Your task to perform on an android device: install app "Speedtest by Ookla" Image 0: 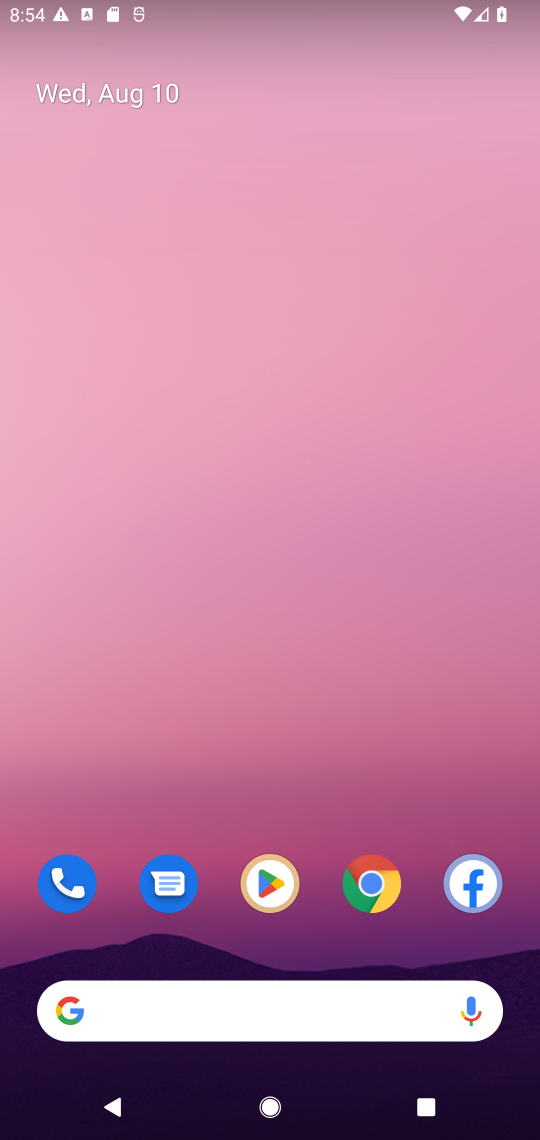
Step 0: drag from (322, 861) to (304, 18)
Your task to perform on an android device: install app "Speedtest by Ookla" Image 1: 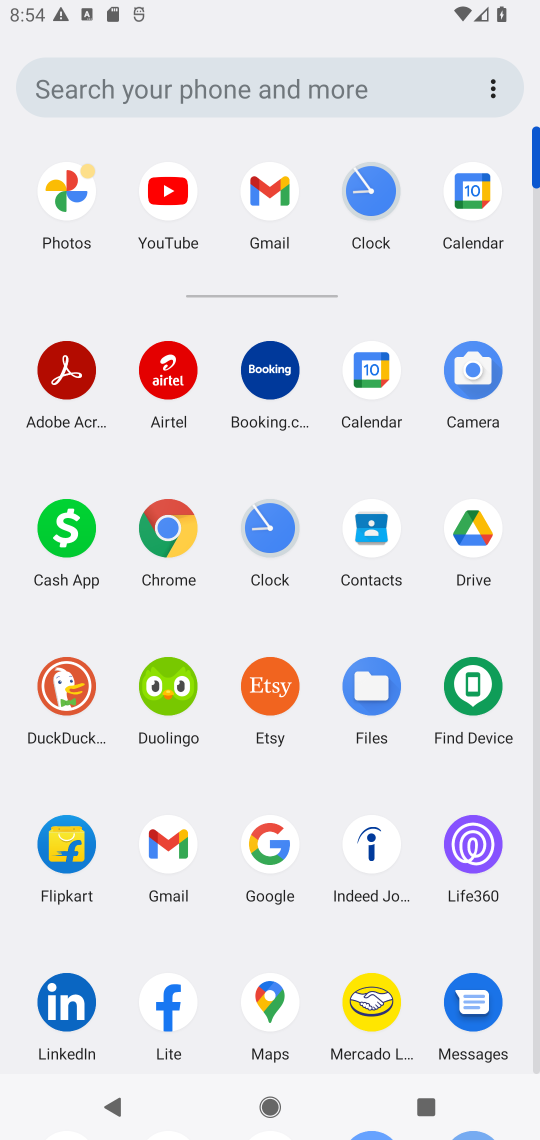
Step 1: drag from (228, 855) to (230, 458)
Your task to perform on an android device: install app "Speedtest by Ookla" Image 2: 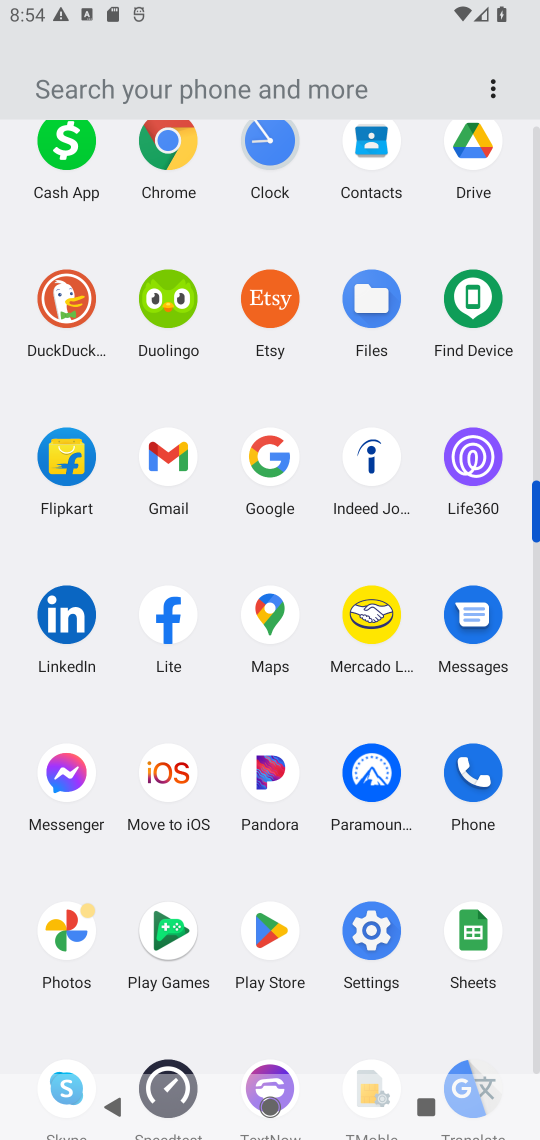
Step 2: click (272, 918)
Your task to perform on an android device: install app "Speedtest by Ookla" Image 3: 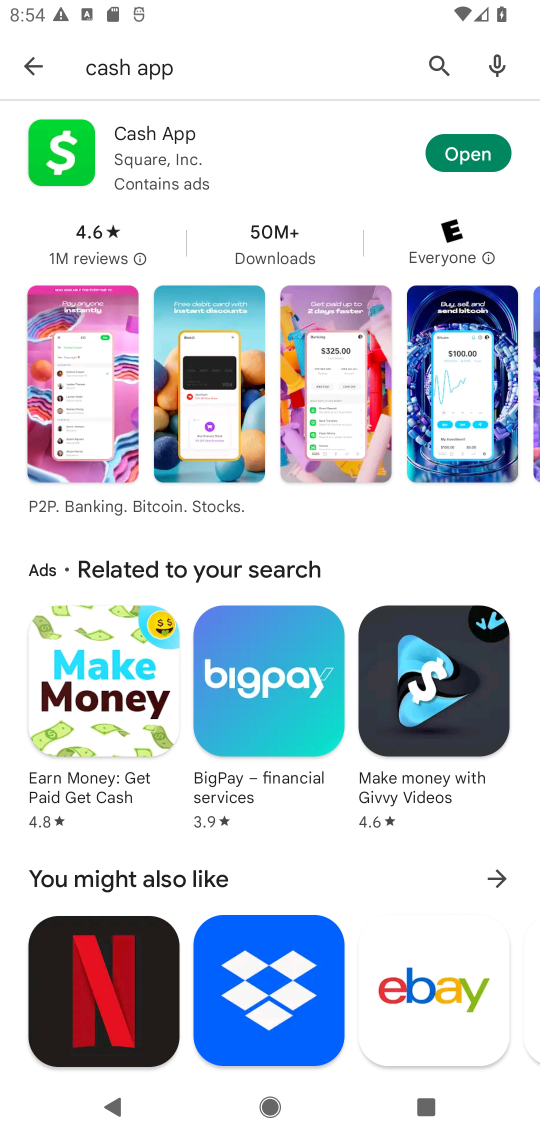
Step 3: click (421, 49)
Your task to perform on an android device: install app "Speedtest by Ookla" Image 4: 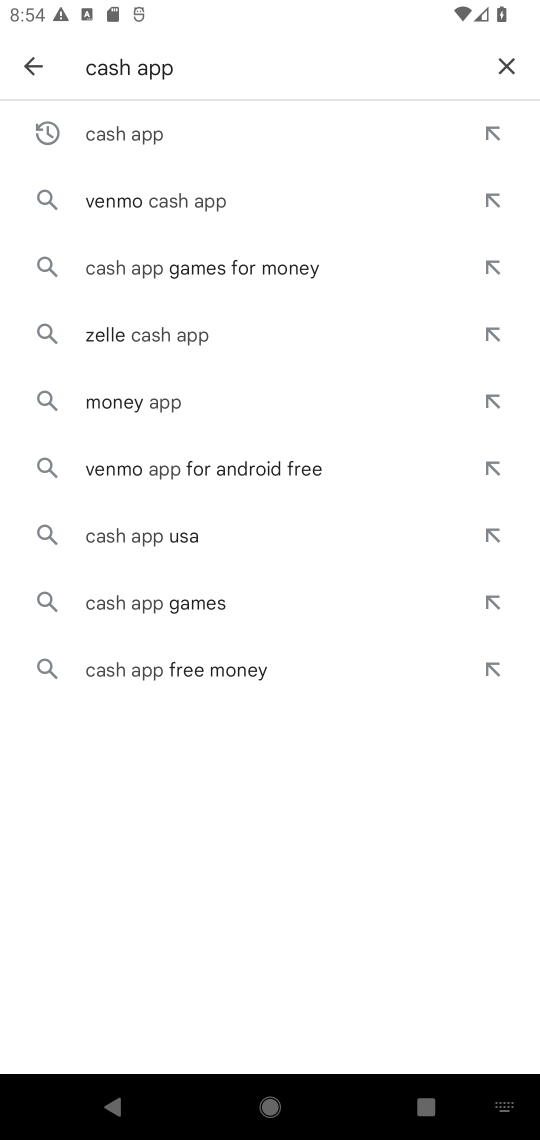
Step 4: click (508, 58)
Your task to perform on an android device: install app "Speedtest by Ookla" Image 5: 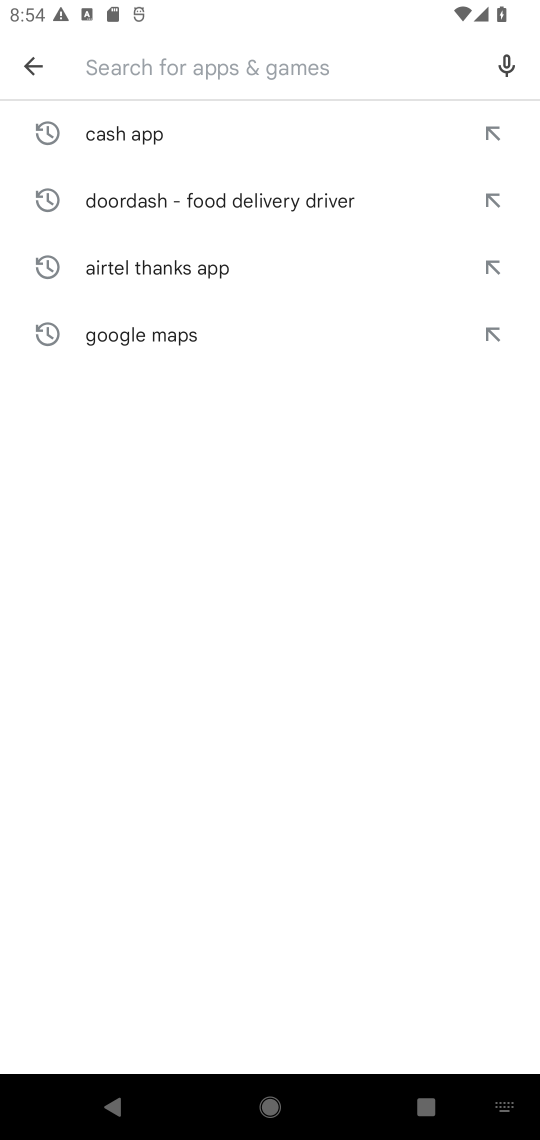
Step 5: type "Speedtest by Ookla"
Your task to perform on an android device: install app "Speedtest by Ookla" Image 6: 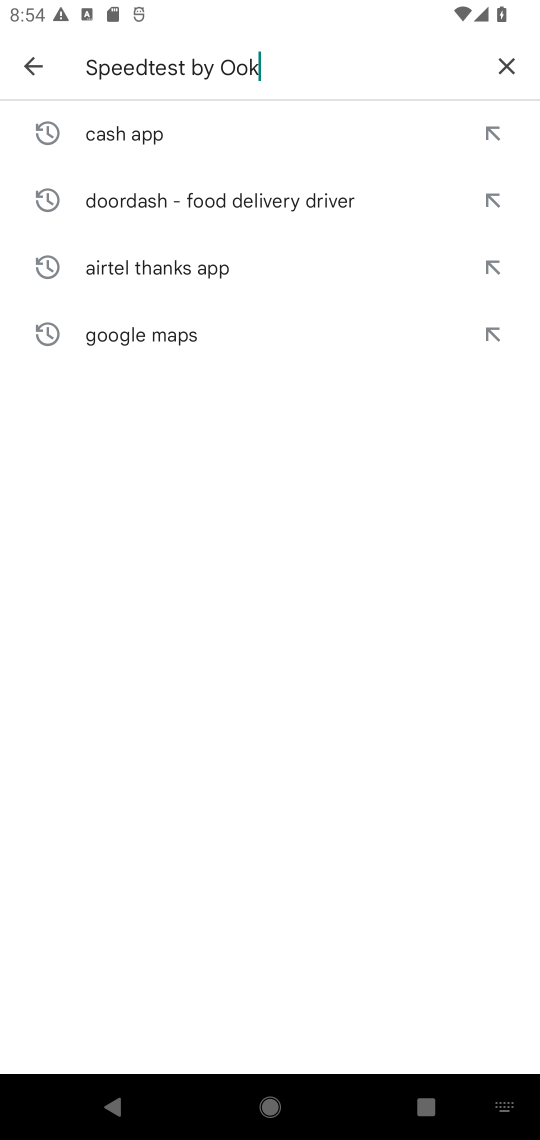
Step 6: type ""
Your task to perform on an android device: install app "Speedtest by Ookla" Image 7: 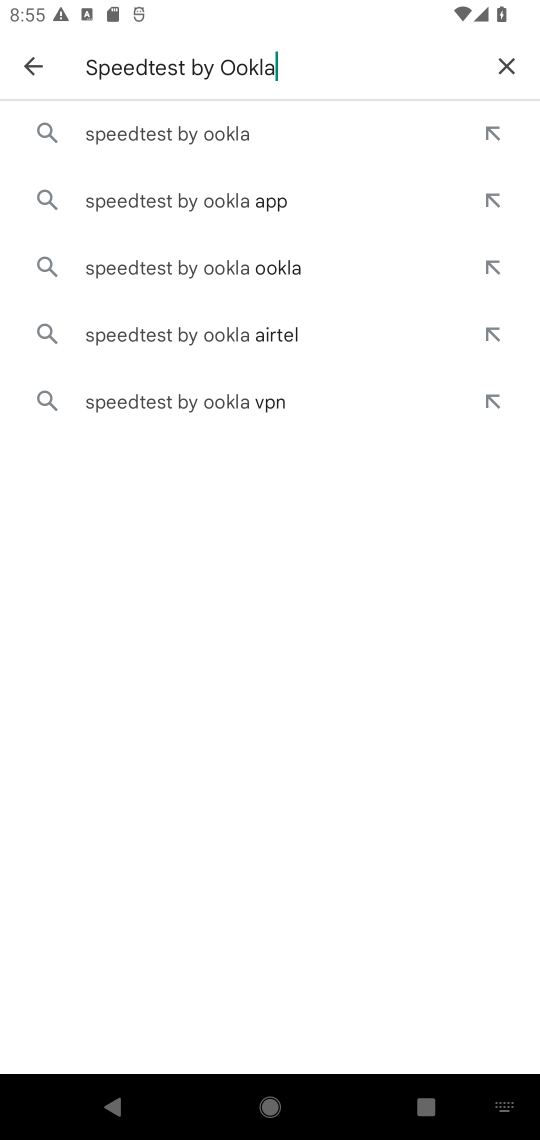
Step 7: click (148, 134)
Your task to perform on an android device: install app "Speedtest by Ookla" Image 8: 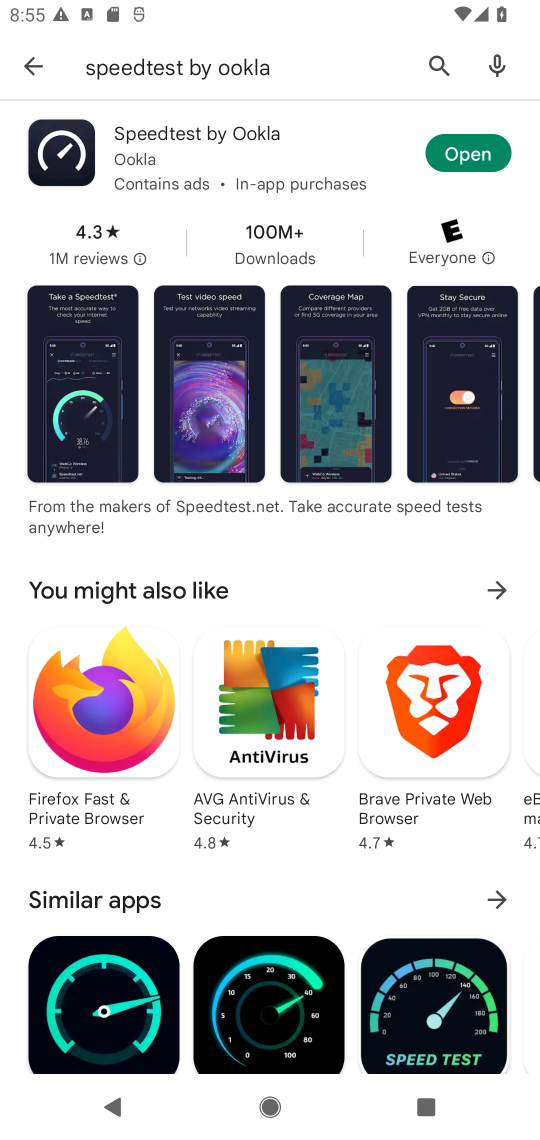
Step 8: task complete